Your task to perform on an android device: set the stopwatch Image 0: 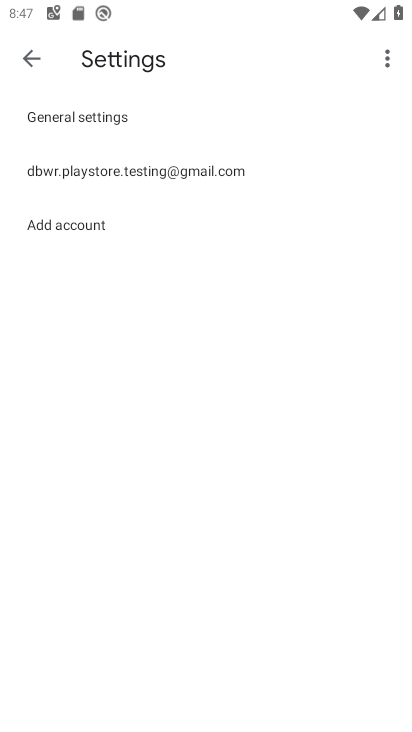
Step 0: click (26, 54)
Your task to perform on an android device: set the stopwatch Image 1: 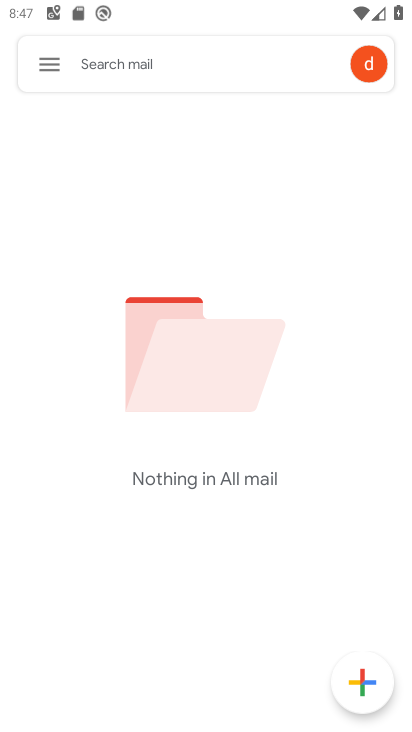
Step 1: press back button
Your task to perform on an android device: set the stopwatch Image 2: 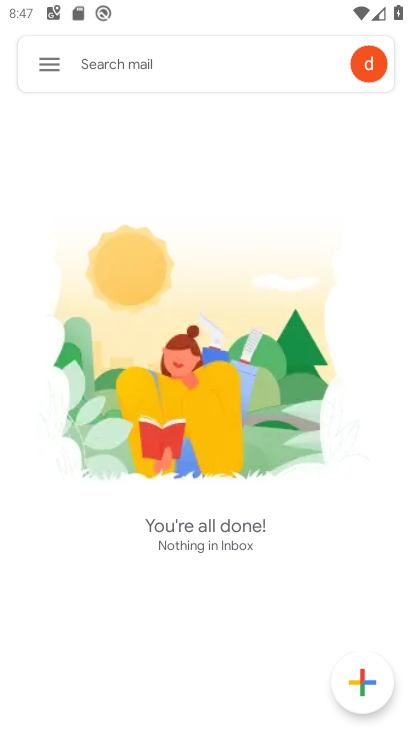
Step 2: click (39, 66)
Your task to perform on an android device: set the stopwatch Image 3: 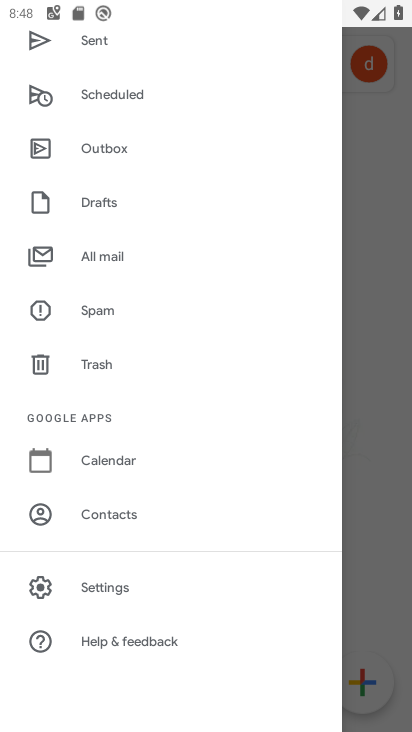
Step 3: click (363, 399)
Your task to perform on an android device: set the stopwatch Image 4: 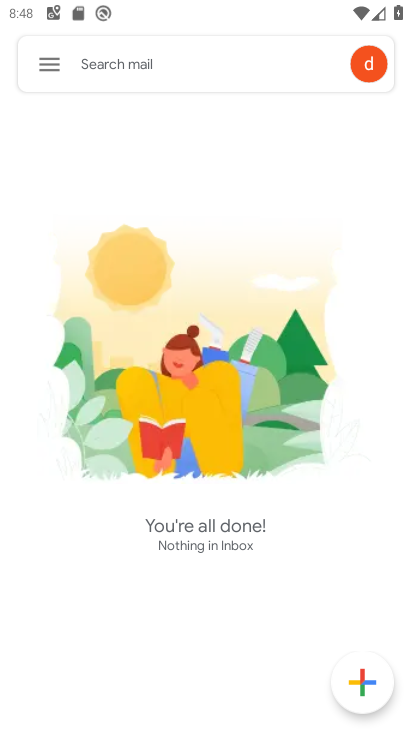
Step 4: press back button
Your task to perform on an android device: set the stopwatch Image 5: 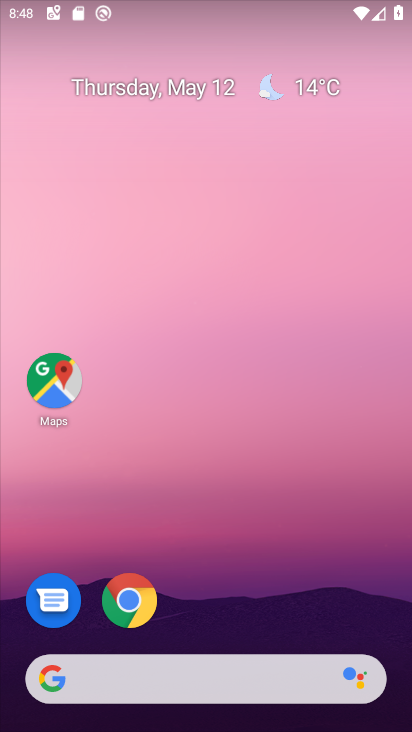
Step 5: drag from (222, 473) to (409, 394)
Your task to perform on an android device: set the stopwatch Image 6: 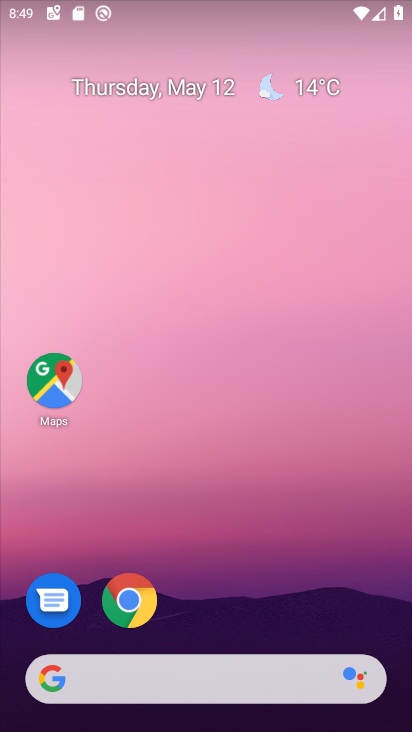
Step 6: drag from (237, 256) to (235, 49)
Your task to perform on an android device: set the stopwatch Image 7: 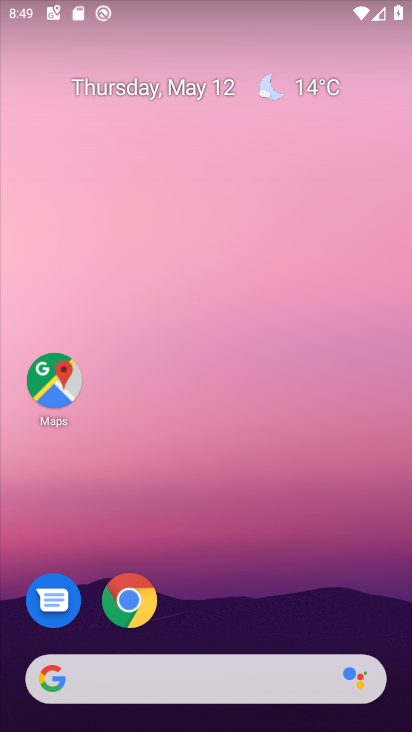
Step 7: drag from (270, 552) to (334, 22)
Your task to perform on an android device: set the stopwatch Image 8: 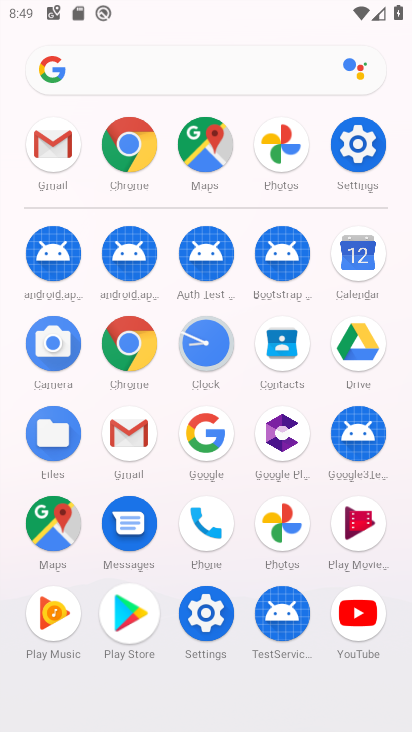
Step 8: click (208, 345)
Your task to perform on an android device: set the stopwatch Image 9: 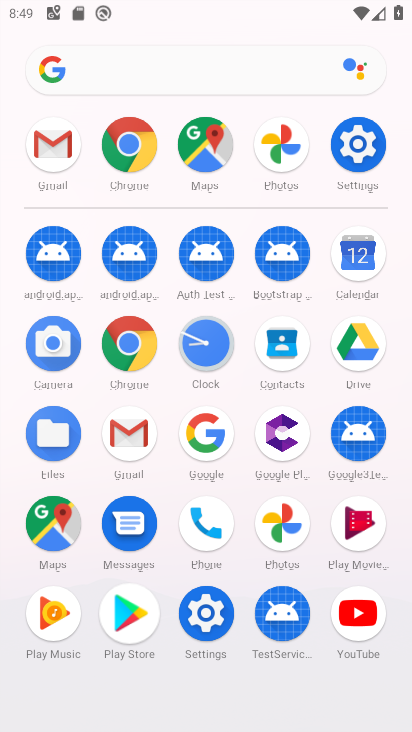
Step 9: click (208, 346)
Your task to perform on an android device: set the stopwatch Image 10: 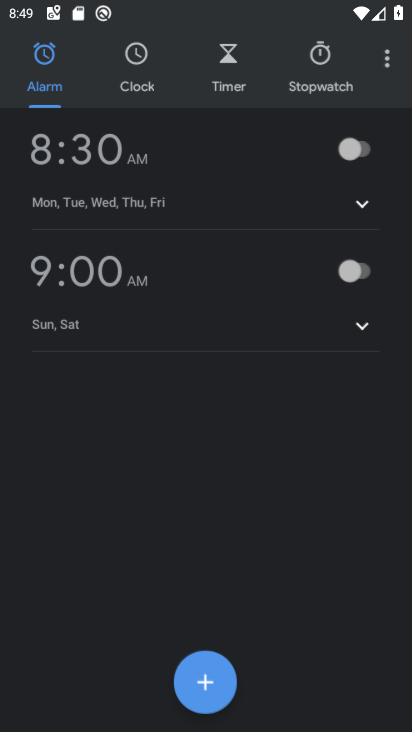
Step 10: click (329, 48)
Your task to perform on an android device: set the stopwatch Image 11: 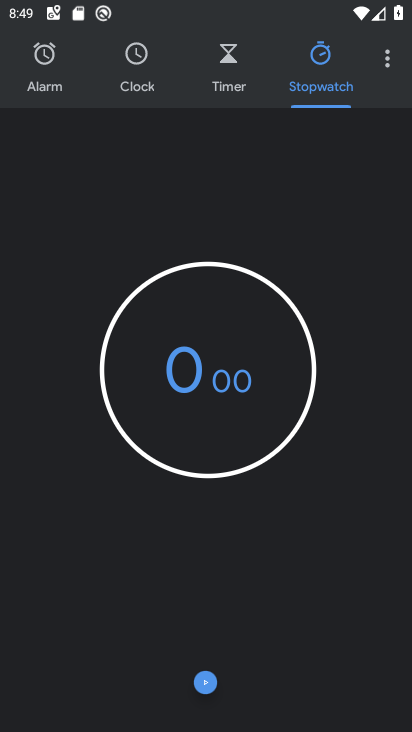
Step 11: click (321, 58)
Your task to perform on an android device: set the stopwatch Image 12: 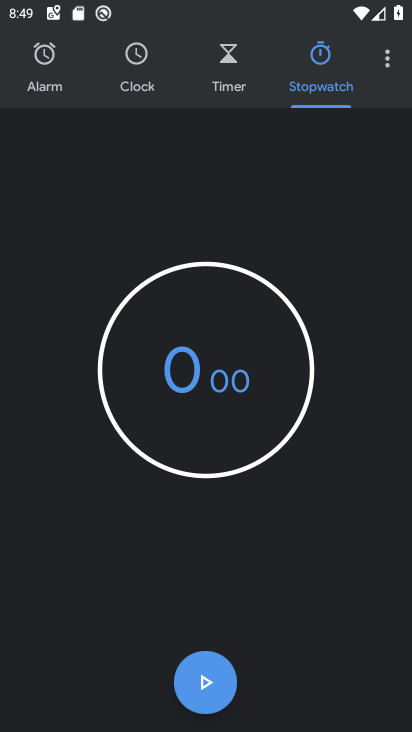
Step 12: click (204, 680)
Your task to perform on an android device: set the stopwatch Image 13: 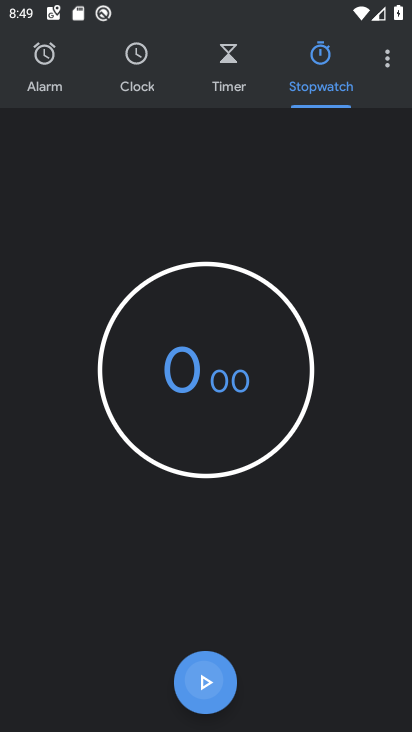
Step 13: click (204, 679)
Your task to perform on an android device: set the stopwatch Image 14: 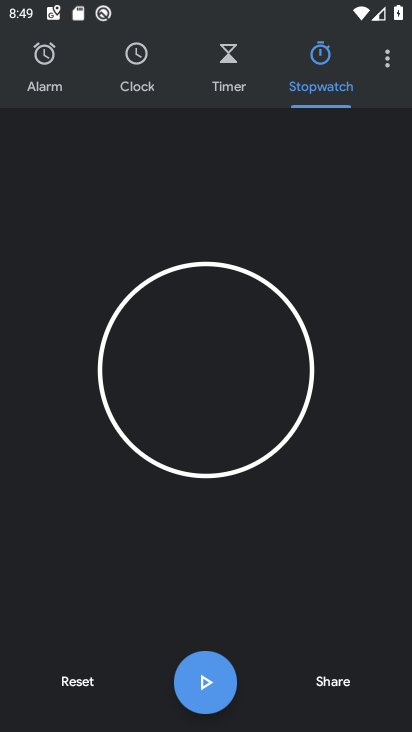
Step 14: click (200, 679)
Your task to perform on an android device: set the stopwatch Image 15: 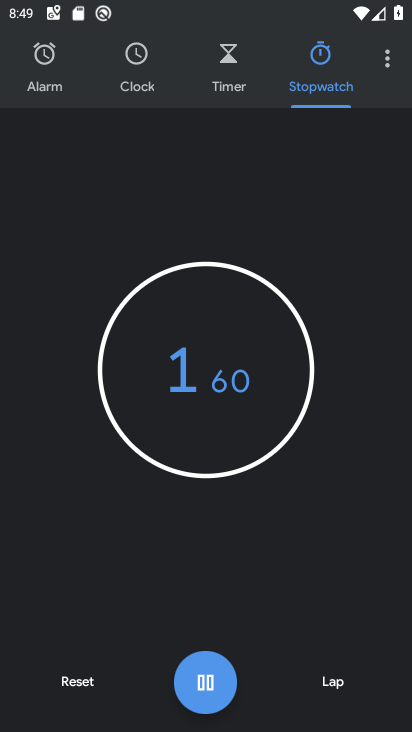
Step 15: click (202, 680)
Your task to perform on an android device: set the stopwatch Image 16: 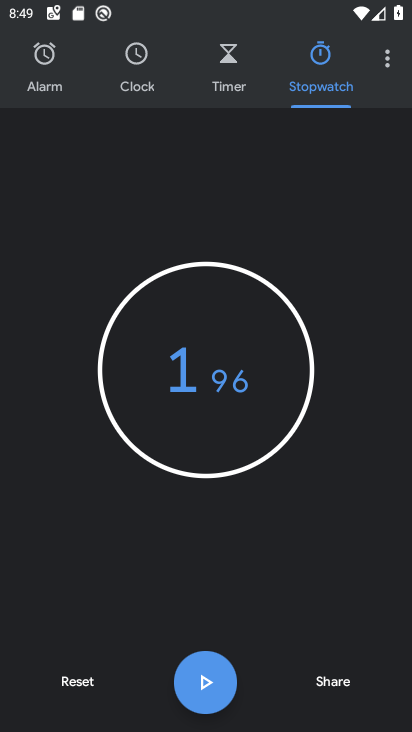
Step 16: click (203, 679)
Your task to perform on an android device: set the stopwatch Image 17: 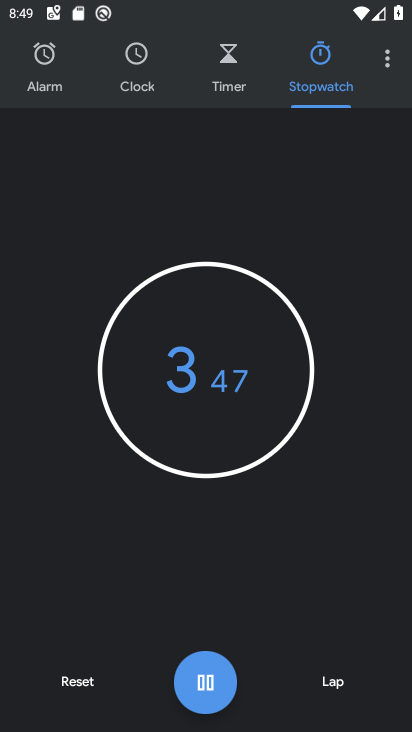
Step 17: task complete